Your task to perform on an android device: change notifications settings Image 0: 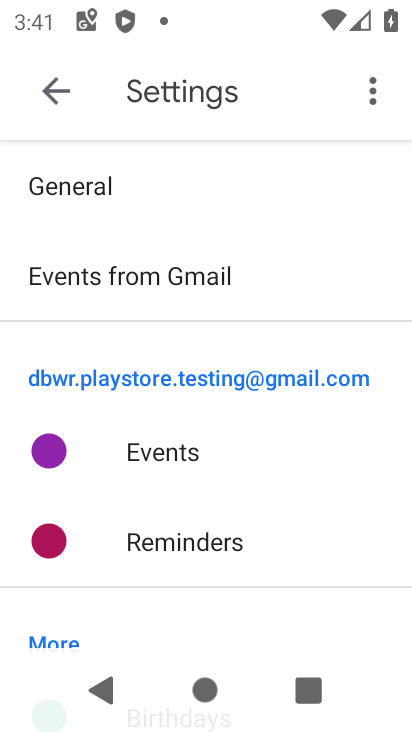
Step 0: task complete